Your task to perform on an android device: Open Google Image 0: 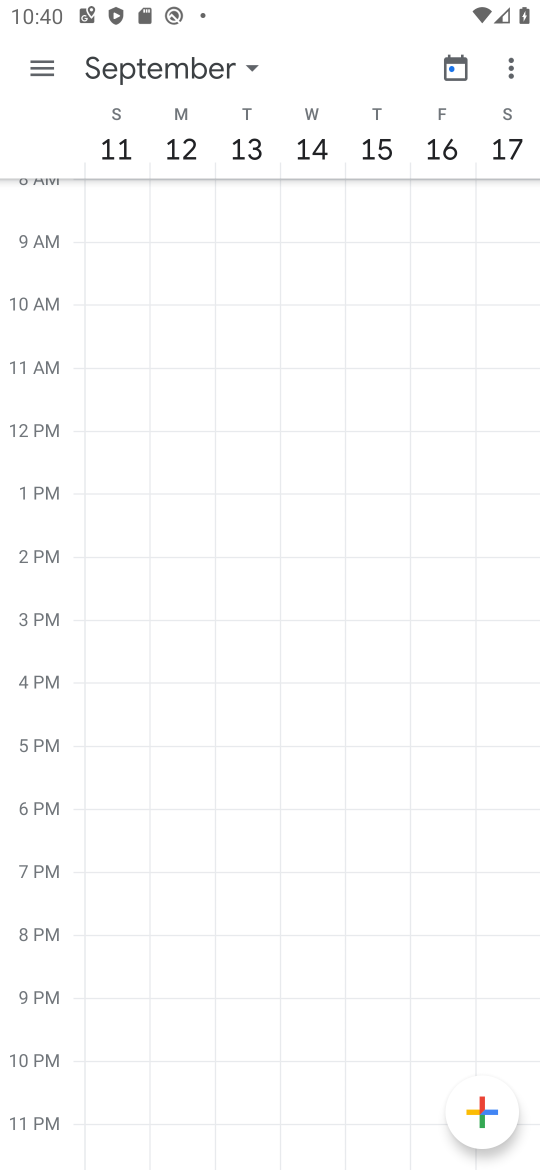
Step 0: press back button
Your task to perform on an android device: Open Google Image 1: 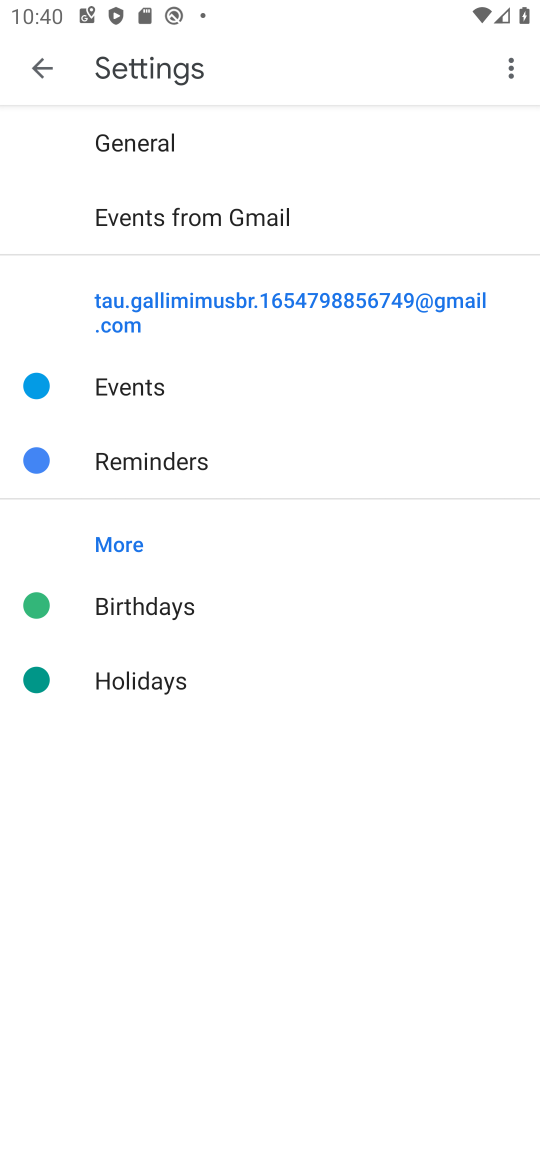
Step 1: press home button
Your task to perform on an android device: Open Google Image 2: 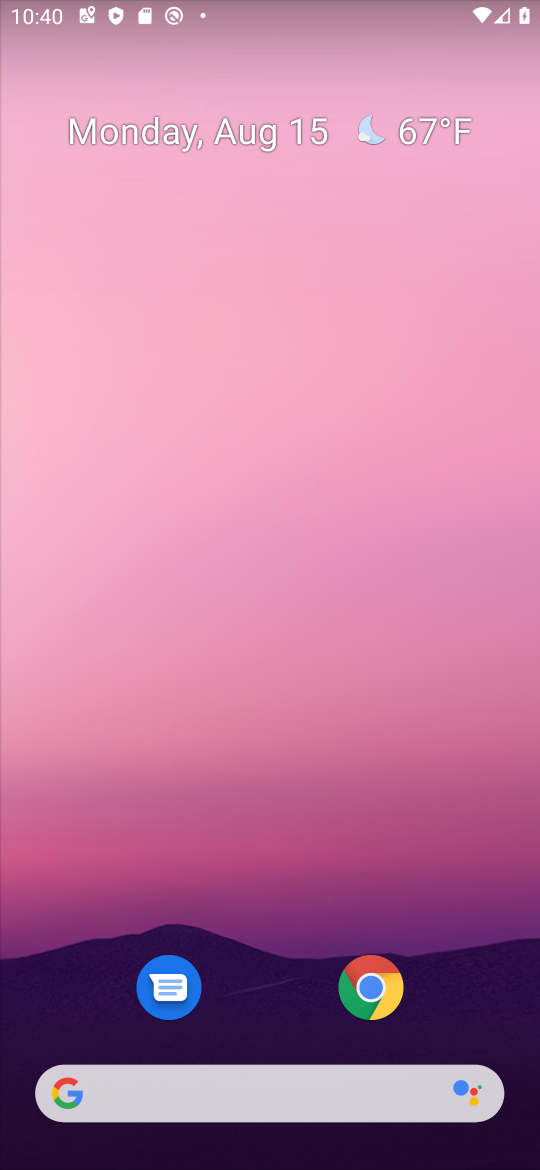
Step 2: drag from (232, 1071) to (188, 123)
Your task to perform on an android device: Open Google Image 3: 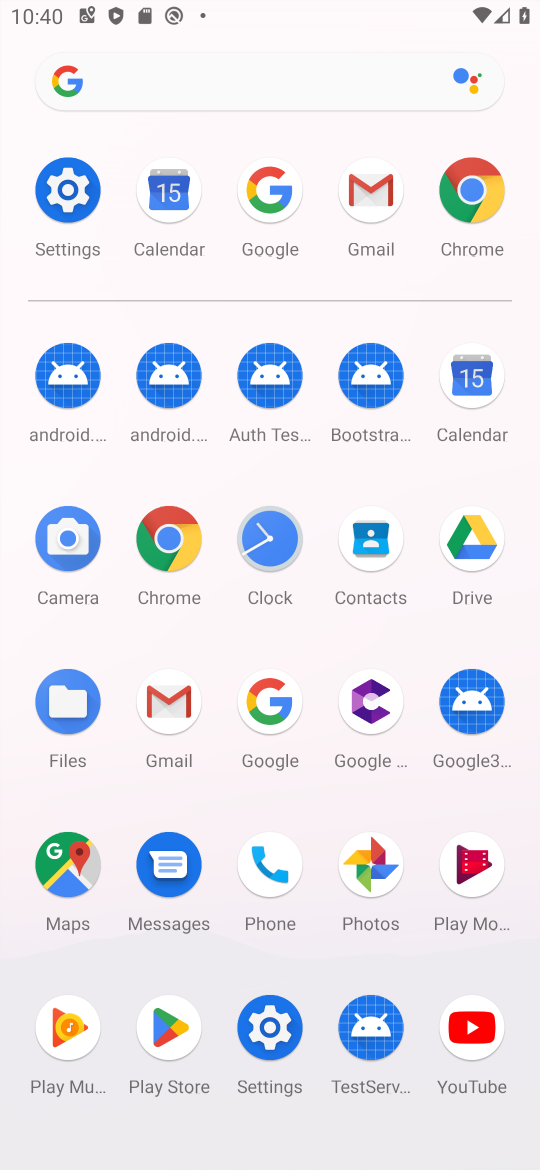
Step 3: click (241, 717)
Your task to perform on an android device: Open Google Image 4: 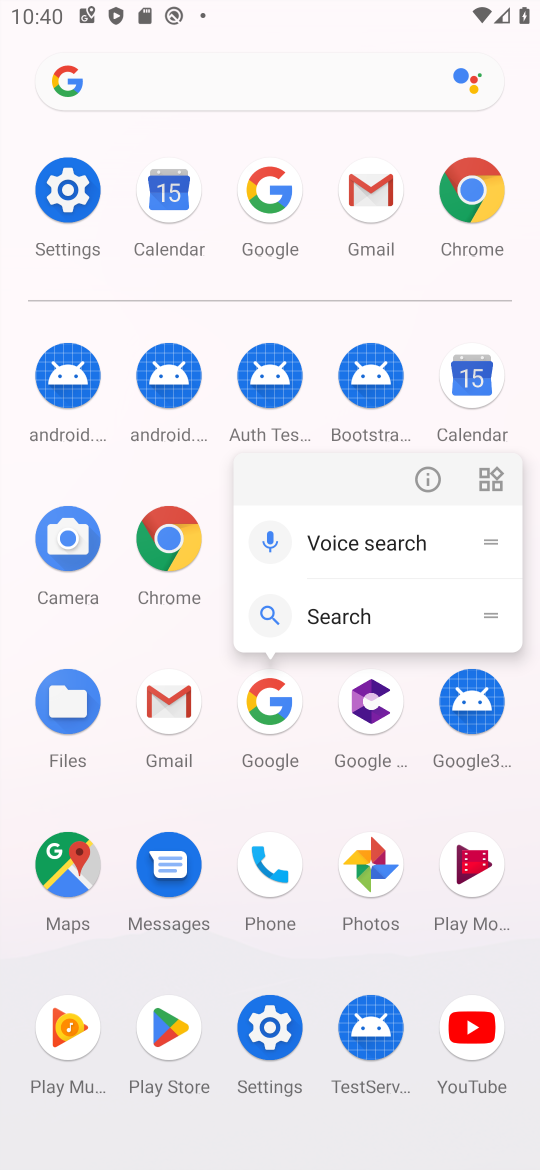
Step 4: click (264, 729)
Your task to perform on an android device: Open Google Image 5: 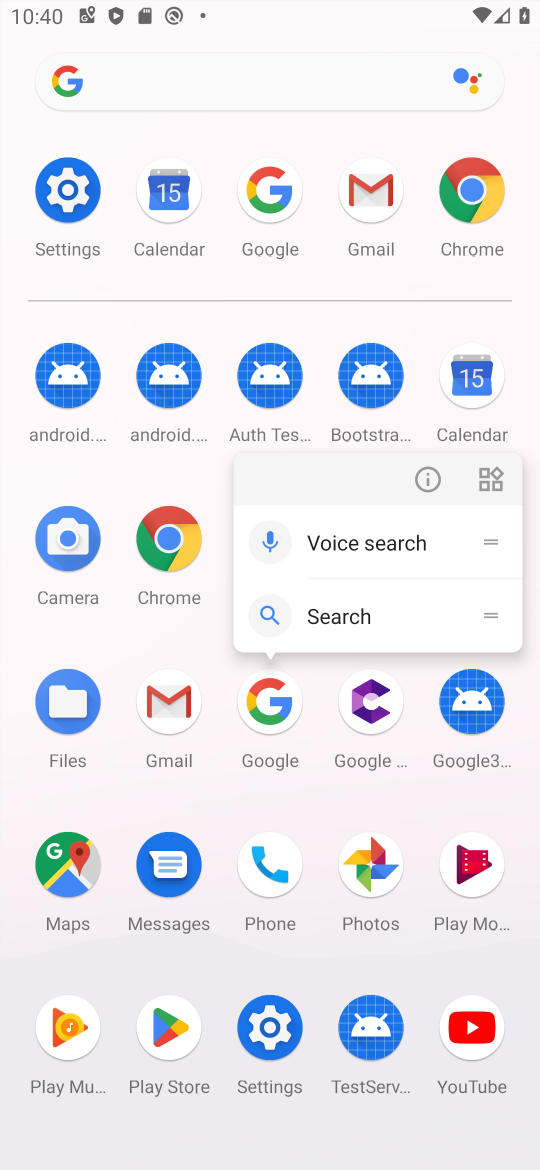
Step 5: click (272, 737)
Your task to perform on an android device: Open Google Image 6: 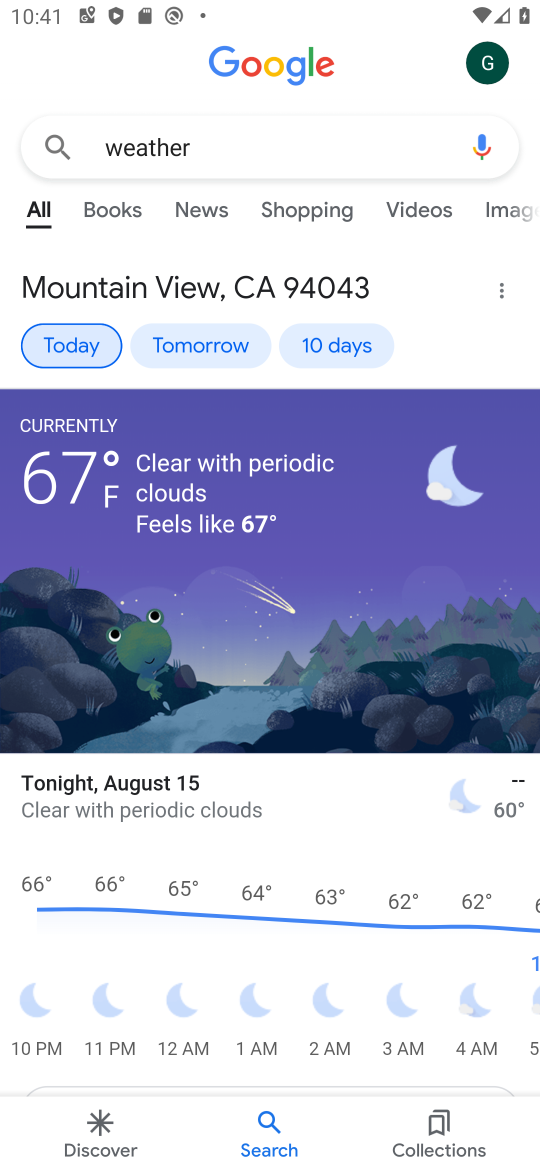
Step 6: task complete